Your task to perform on an android device: change notifications settings Image 0: 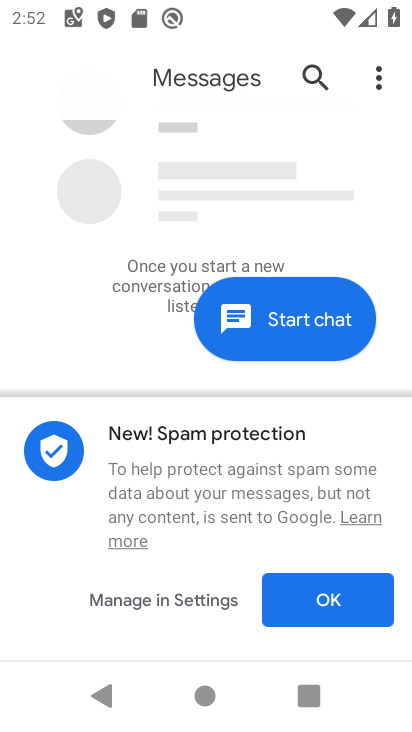
Step 0: press home button
Your task to perform on an android device: change notifications settings Image 1: 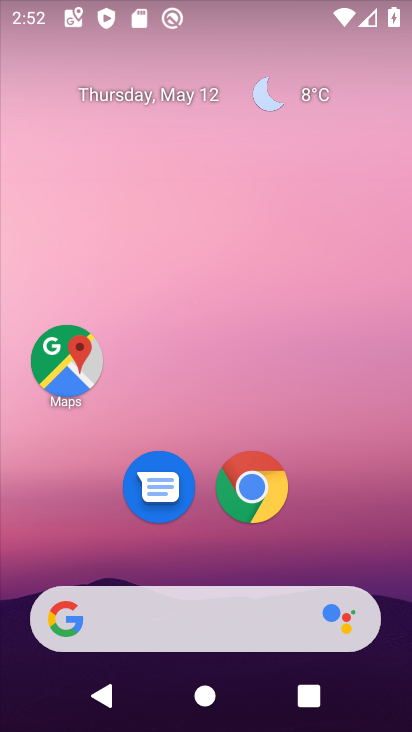
Step 1: drag from (337, 501) to (250, 116)
Your task to perform on an android device: change notifications settings Image 2: 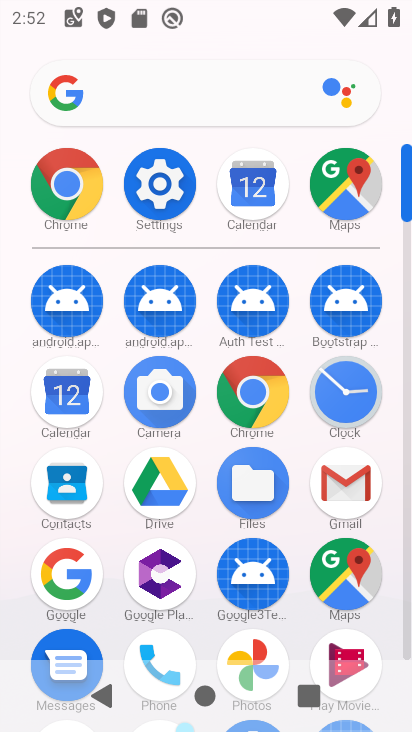
Step 2: click (170, 200)
Your task to perform on an android device: change notifications settings Image 3: 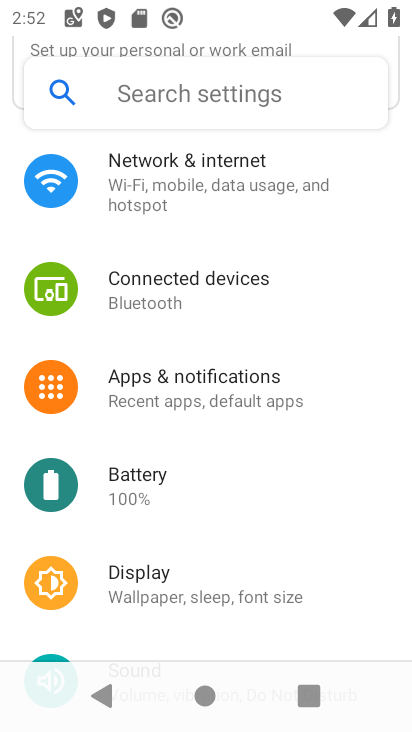
Step 3: click (194, 385)
Your task to perform on an android device: change notifications settings Image 4: 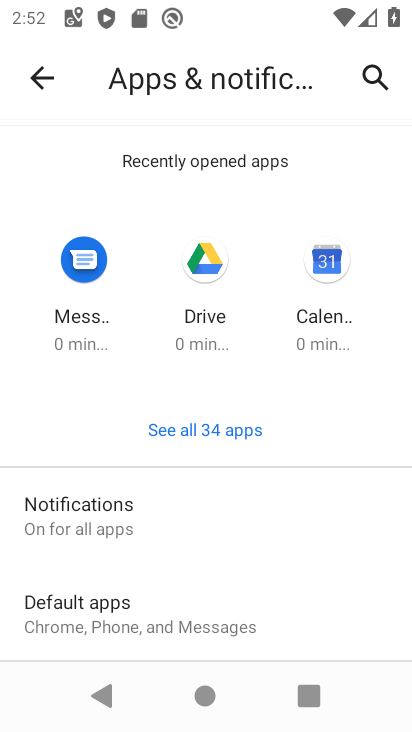
Step 4: click (142, 501)
Your task to perform on an android device: change notifications settings Image 5: 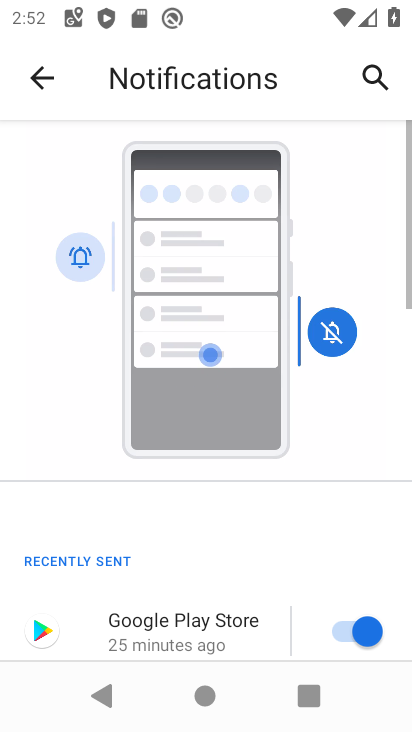
Step 5: drag from (278, 574) to (316, 67)
Your task to perform on an android device: change notifications settings Image 6: 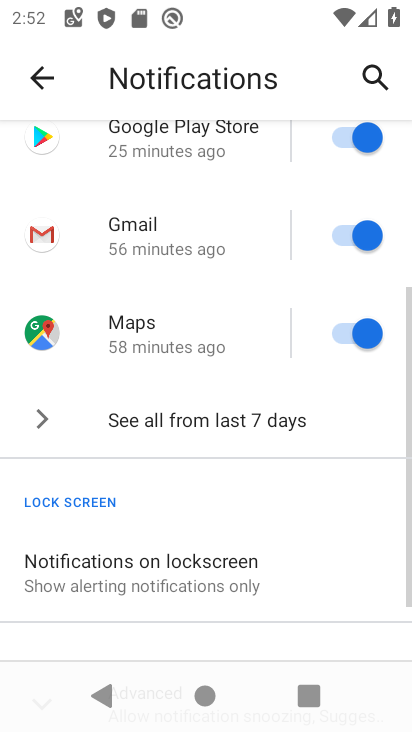
Step 6: drag from (217, 520) to (264, 146)
Your task to perform on an android device: change notifications settings Image 7: 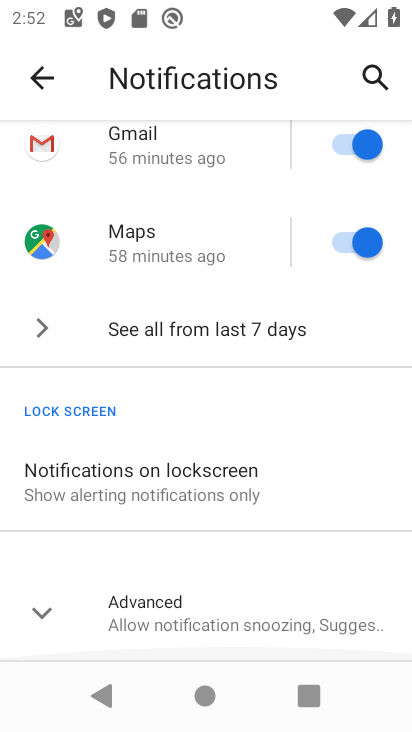
Step 7: click (134, 598)
Your task to perform on an android device: change notifications settings Image 8: 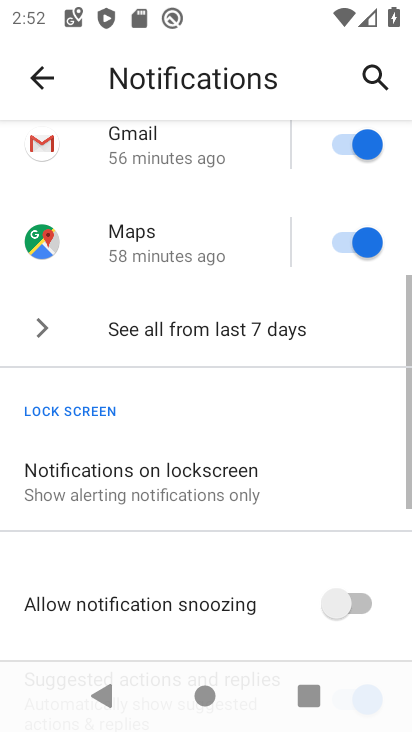
Step 8: drag from (283, 591) to (301, 261)
Your task to perform on an android device: change notifications settings Image 9: 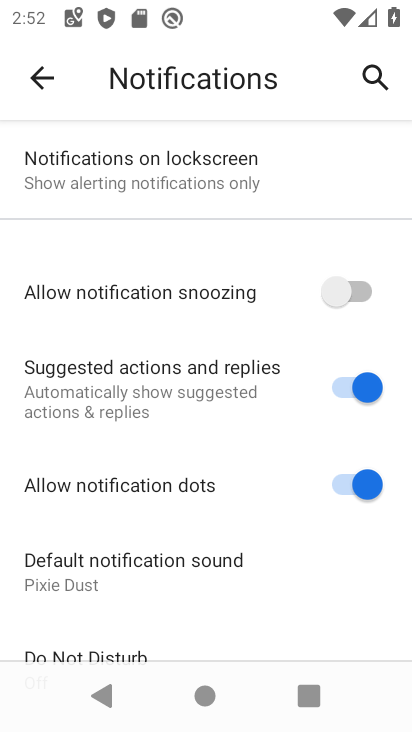
Step 9: click (361, 292)
Your task to perform on an android device: change notifications settings Image 10: 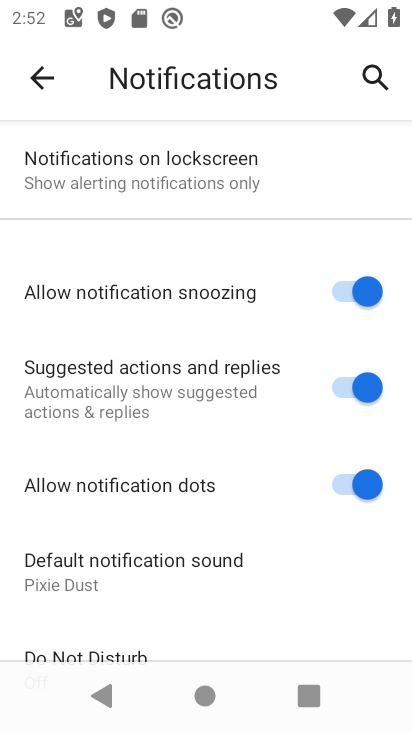
Step 10: task complete